Your task to perform on an android device: How do I get to the nearest McDonalds? Image 0: 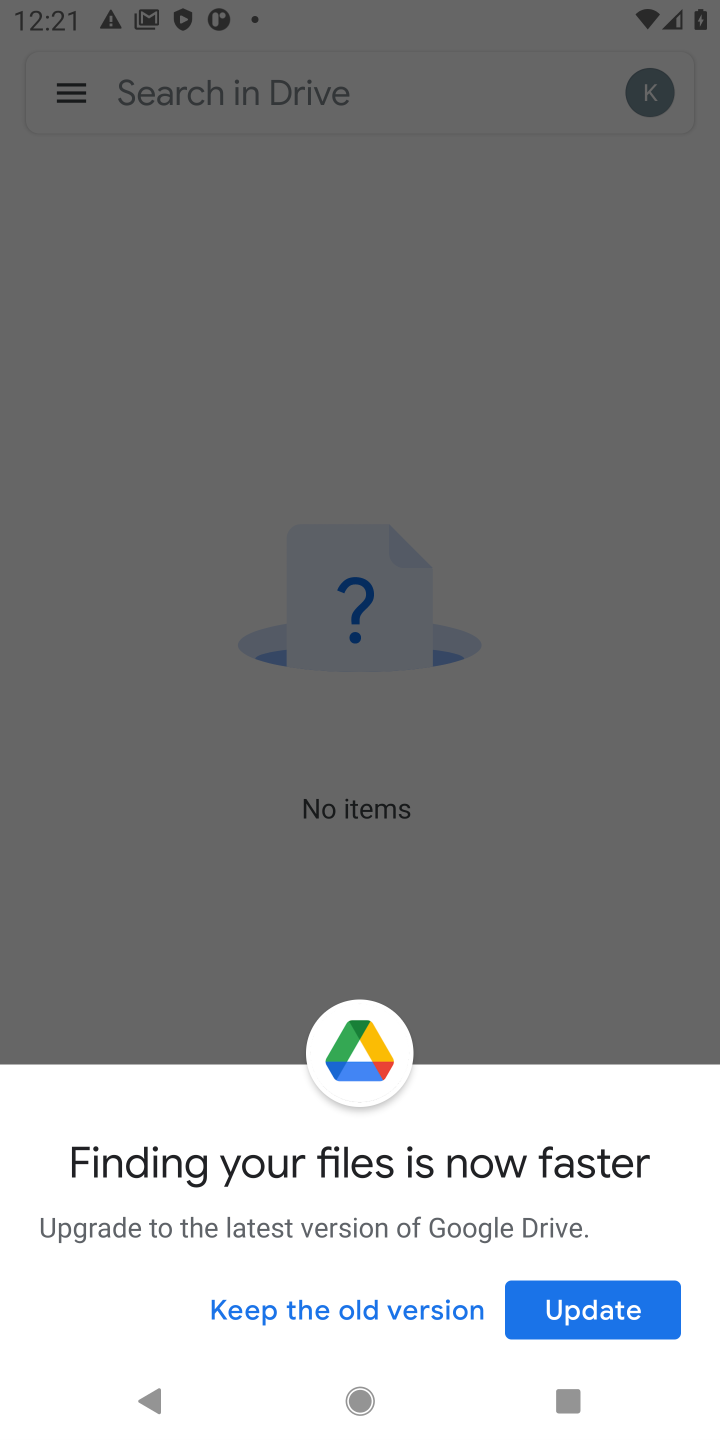
Step 0: press home button
Your task to perform on an android device: How do I get to the nearest McDonalds? Image 1: 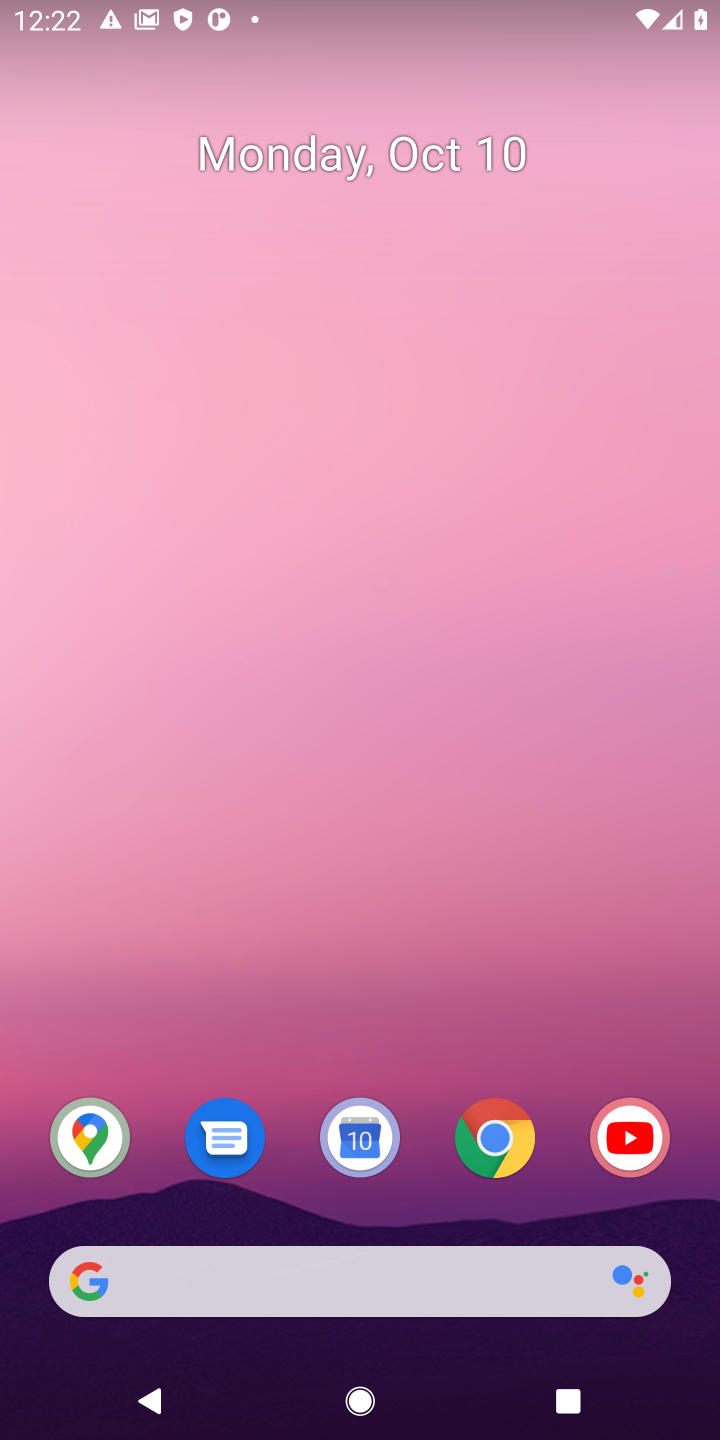
Step 1: click (511, 1133)
Your task to perform on an android device: How do I get to the nearest McDonalds? Image 2: 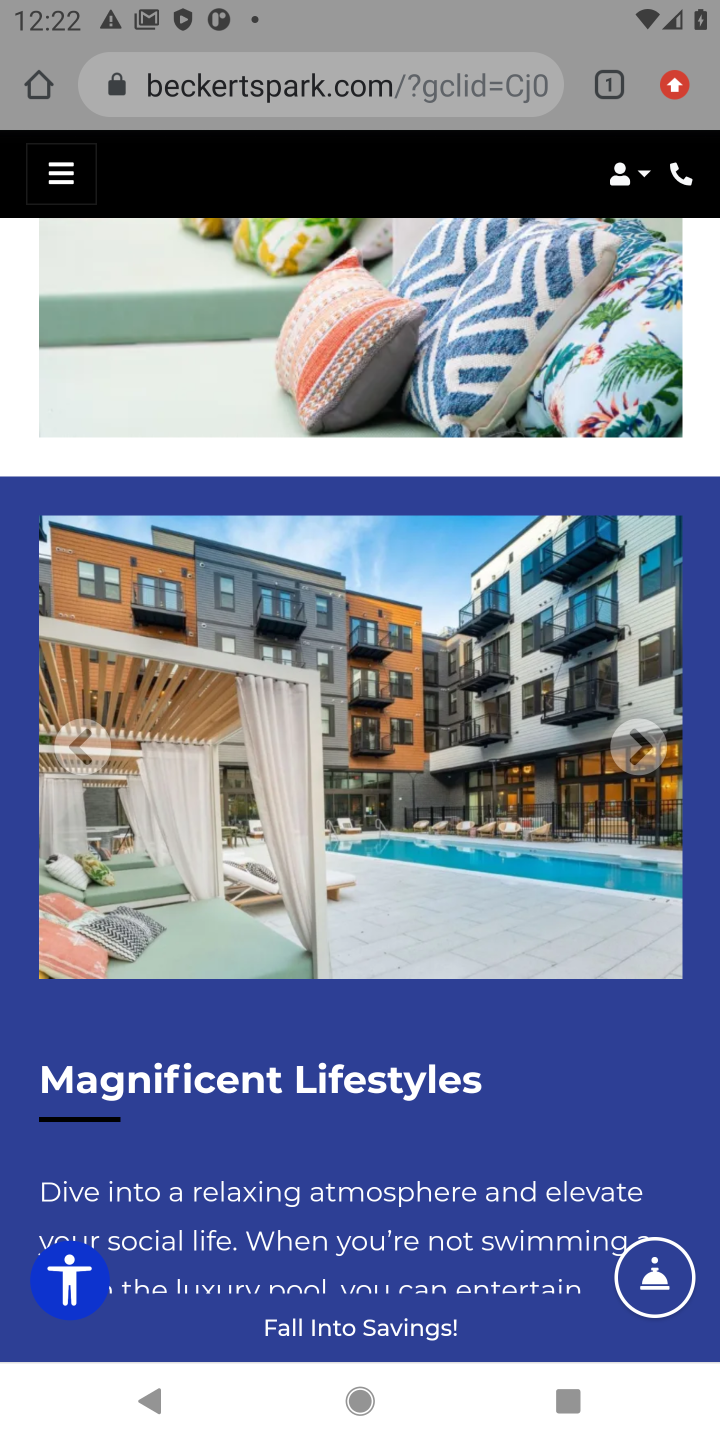
Step 2: click (322, 97)
Your task to perform on an android device: How do I get to the nearest McDonalds? Image 3: 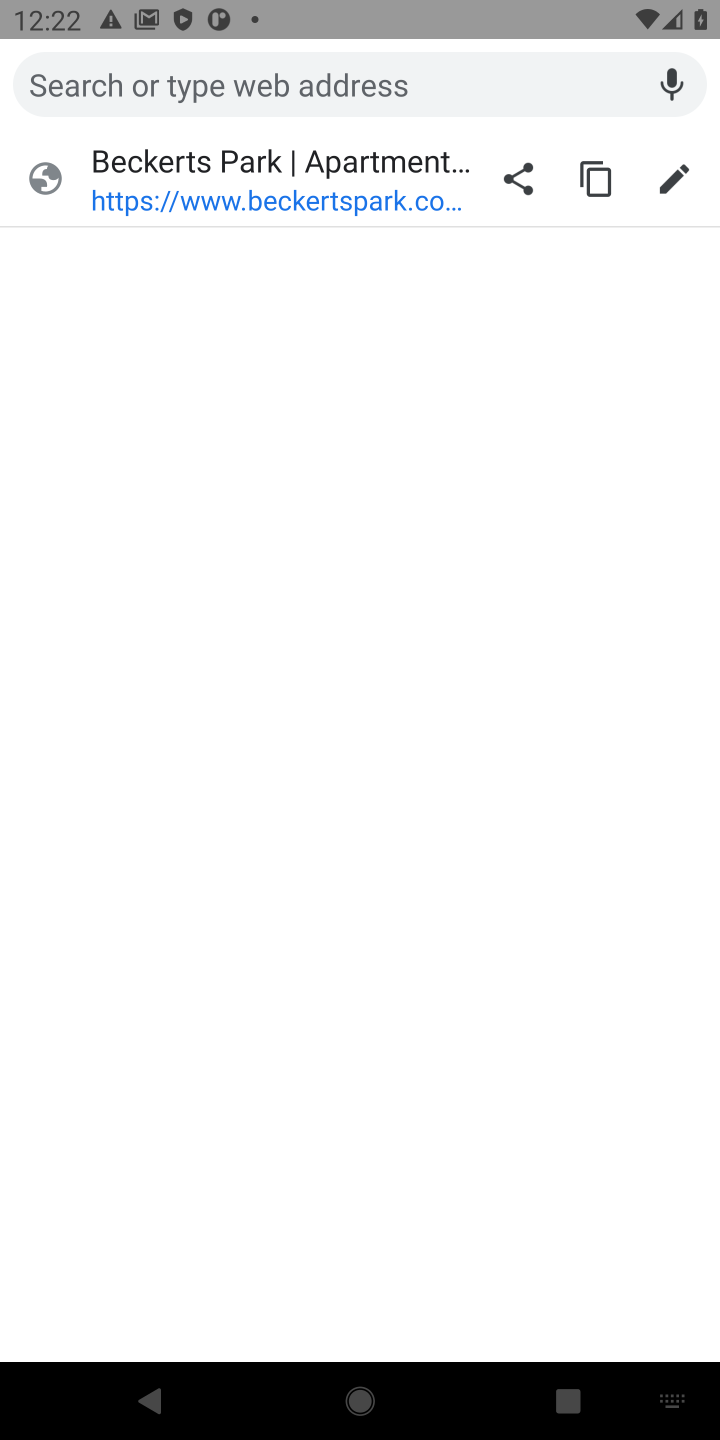
Step 3: type "How do I get to the nearest McDonalds?"
Your task to perform on an android device: How do I get to the nearest McDonalds? Image 4: 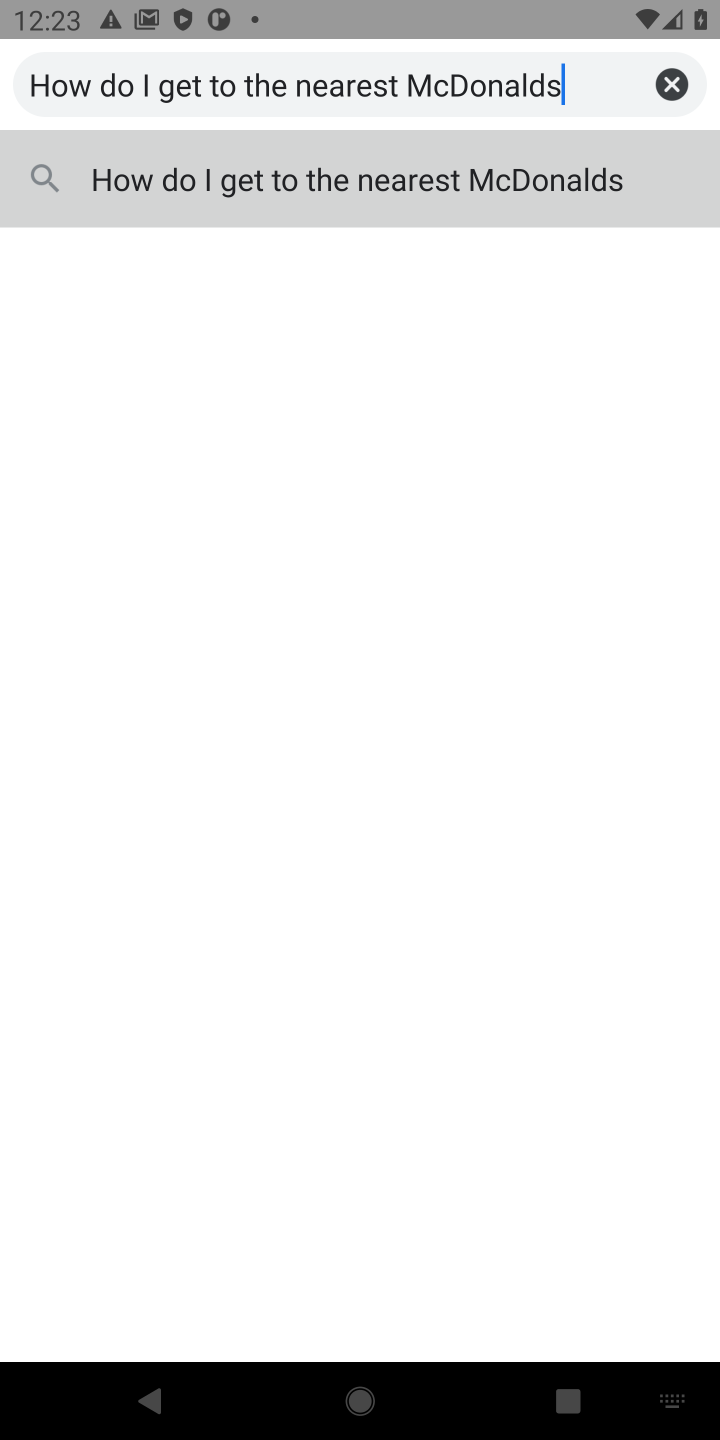
Step 4: press enter
Your task to perform on an android device: How do I get to the nearest McDonalds? Image 5: 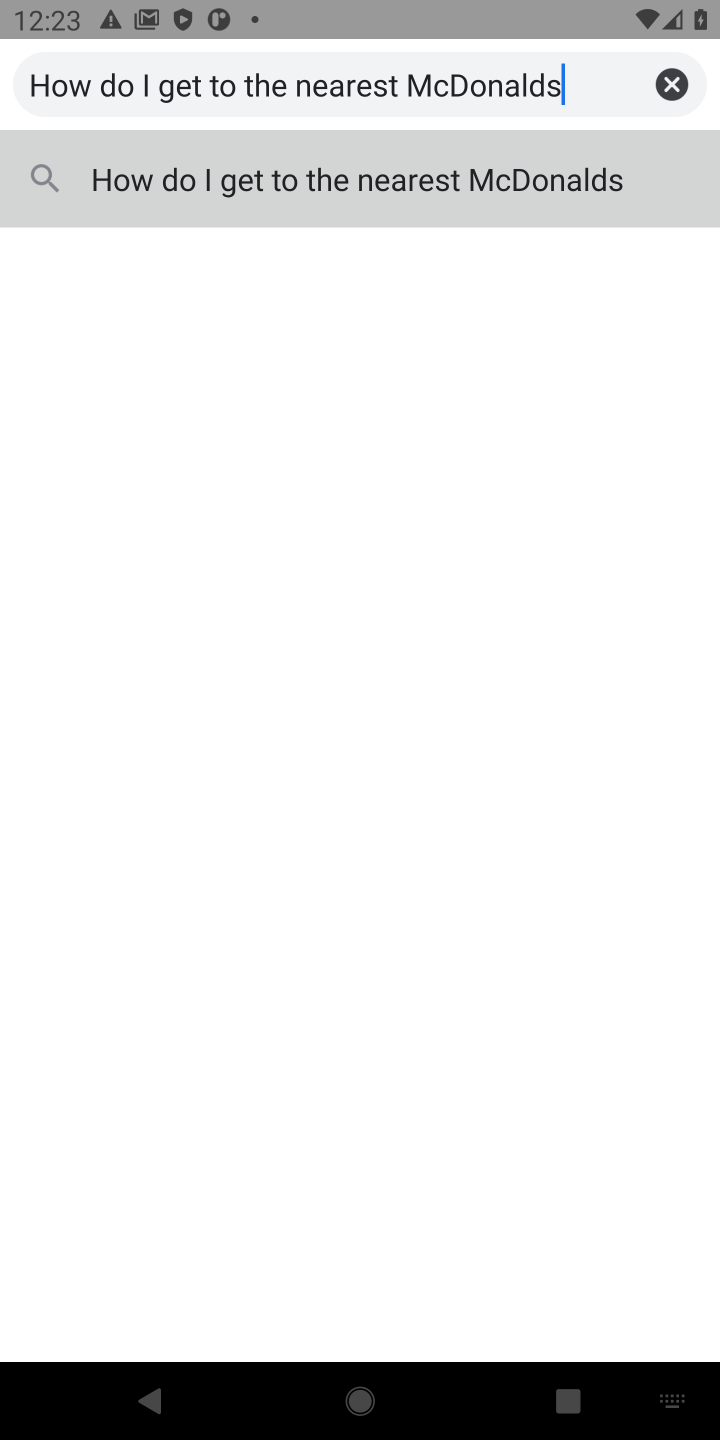
Step 5: type "How do I get to the nearest McDonalds?"
Your task to perform on an android device: How do I get to the nearest McDonalds? Image 6: 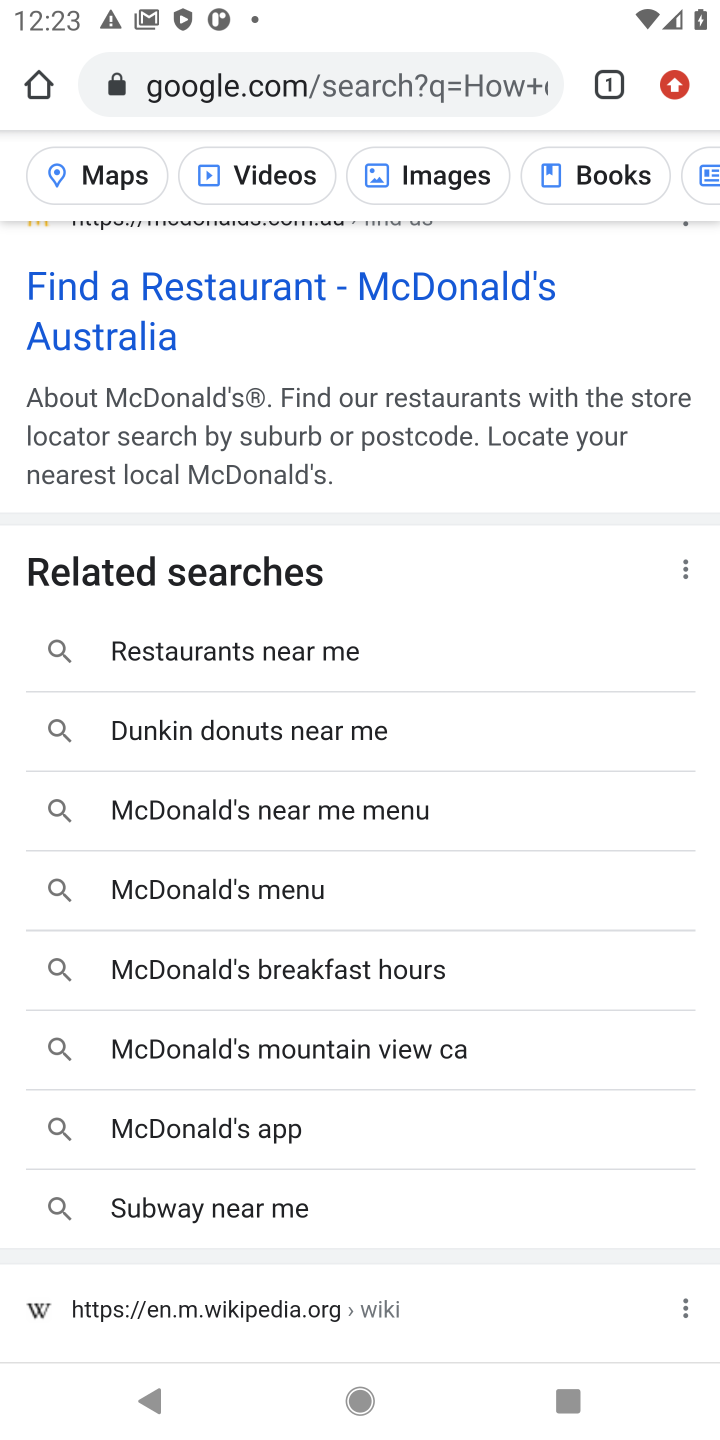
Step 6: click (519, 438)
Your task to perform on an android device: How do I get to the nearest McDonalds? Image 7: 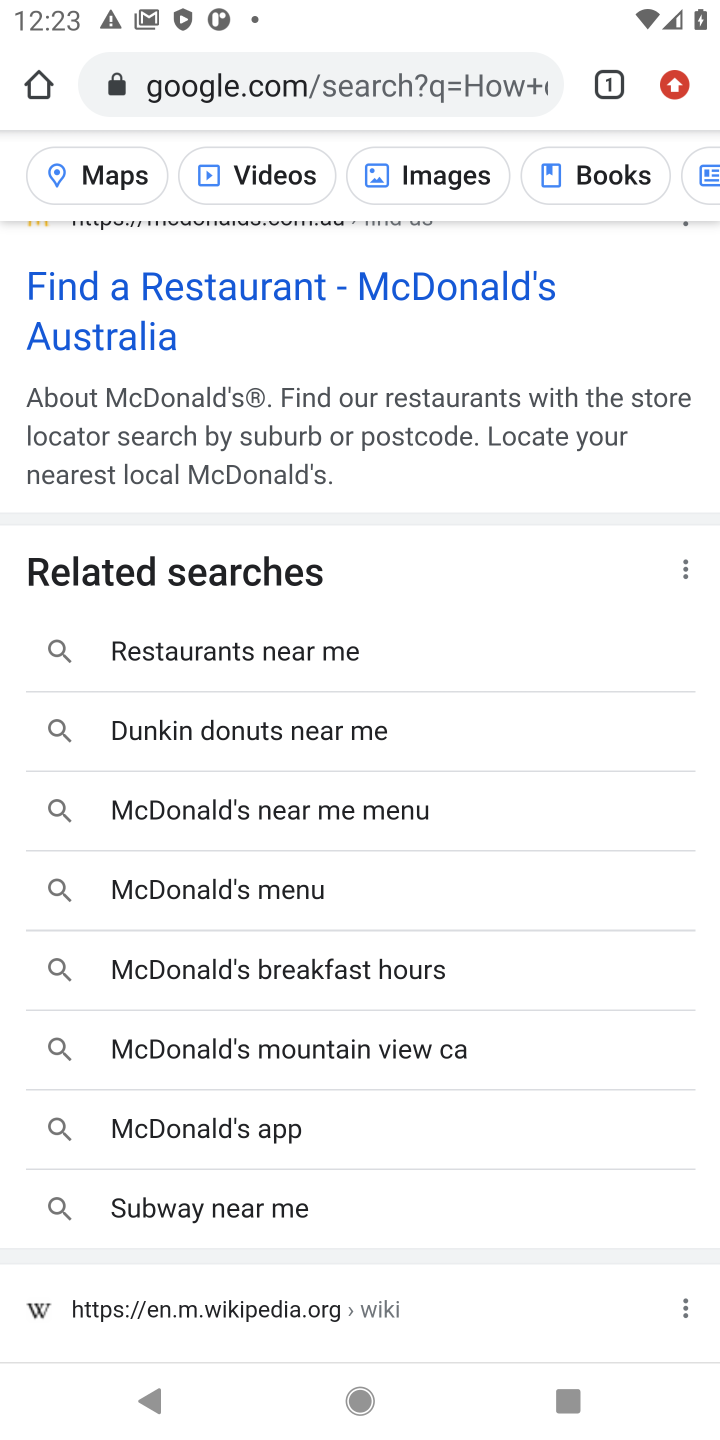
Step 7: drag from (606, 1155) to (573, 198)
Your task to perform on an android device: How do I get to the nearest McDonalds? Image 8: 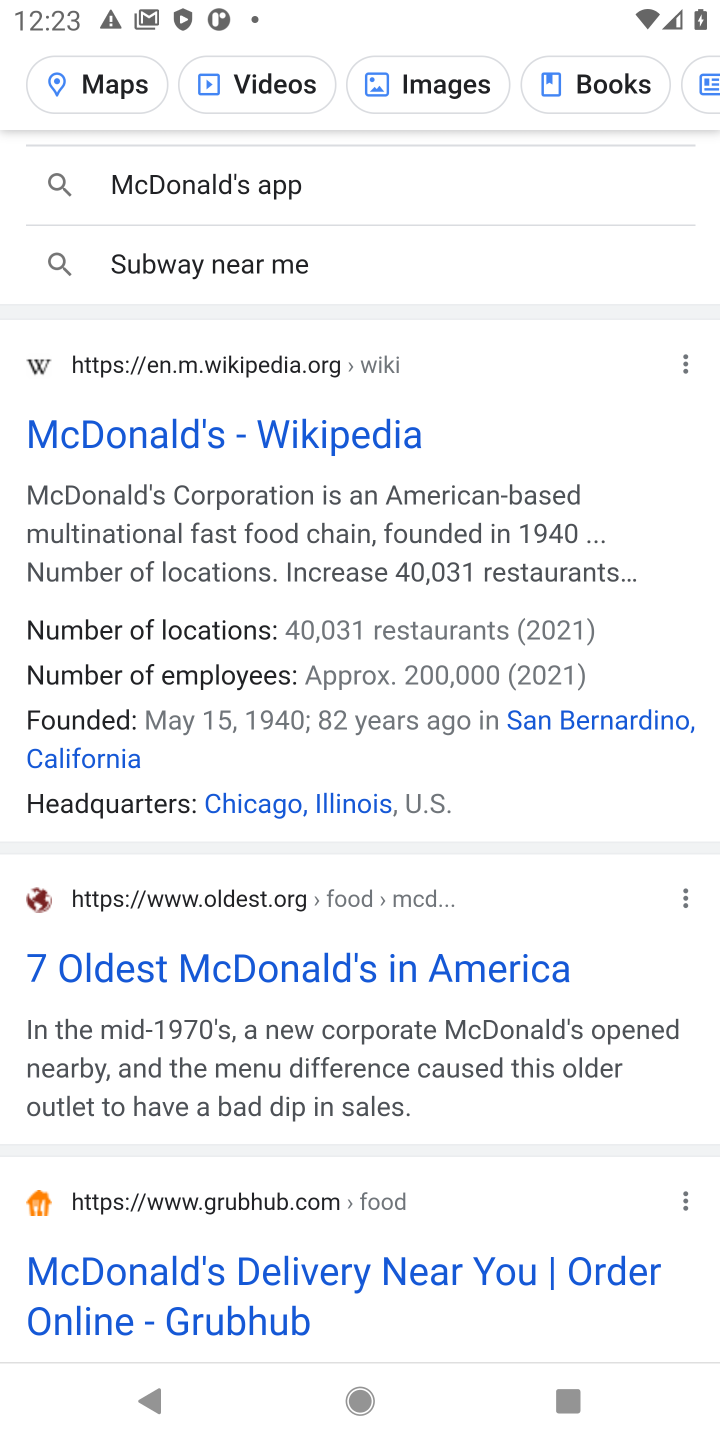
Step 8: drag from (415, 539) to (708, 1347)
Your task to perform on an android device: How do I get to the nearest McDonalds? Image 9: 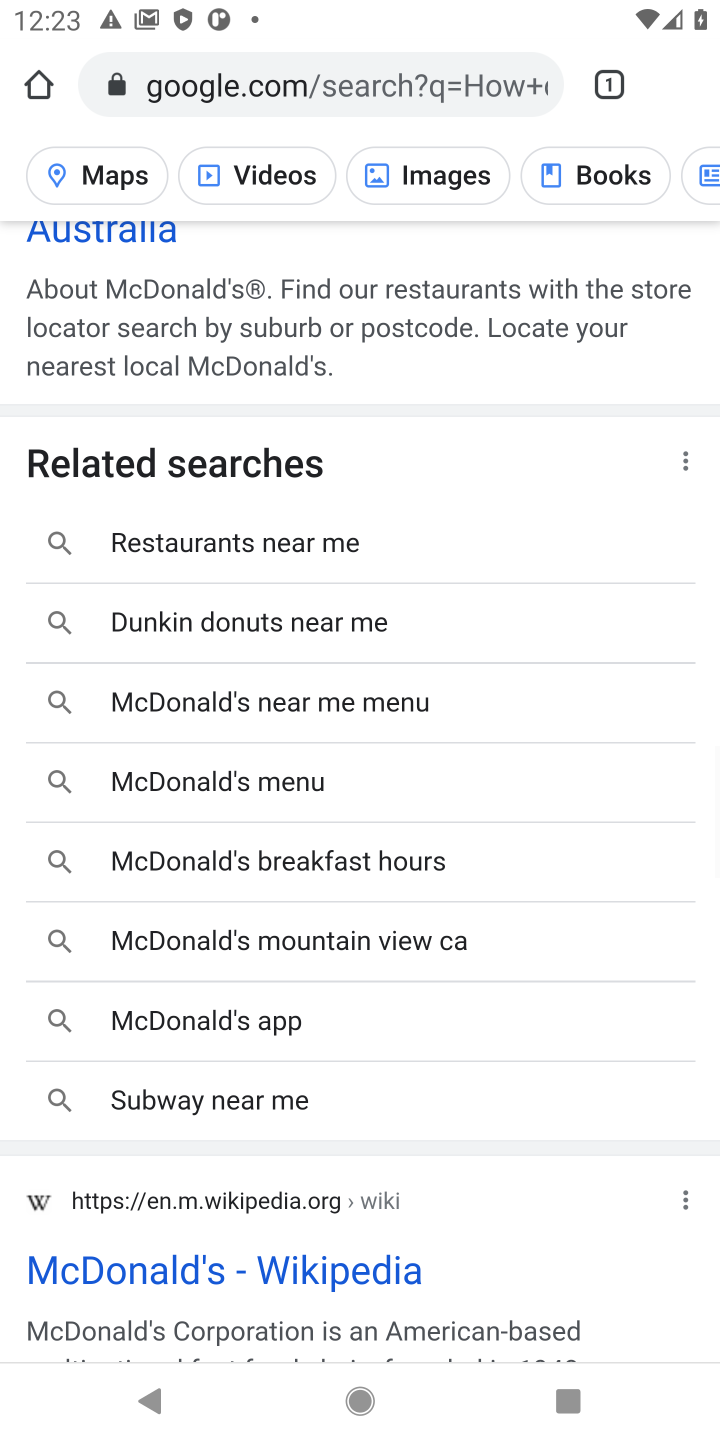
Step 9: drag from (536, 787) to (508, 1426)
Your task to perform on an android device: How do I get to the nearest McDonalds? Image 10: 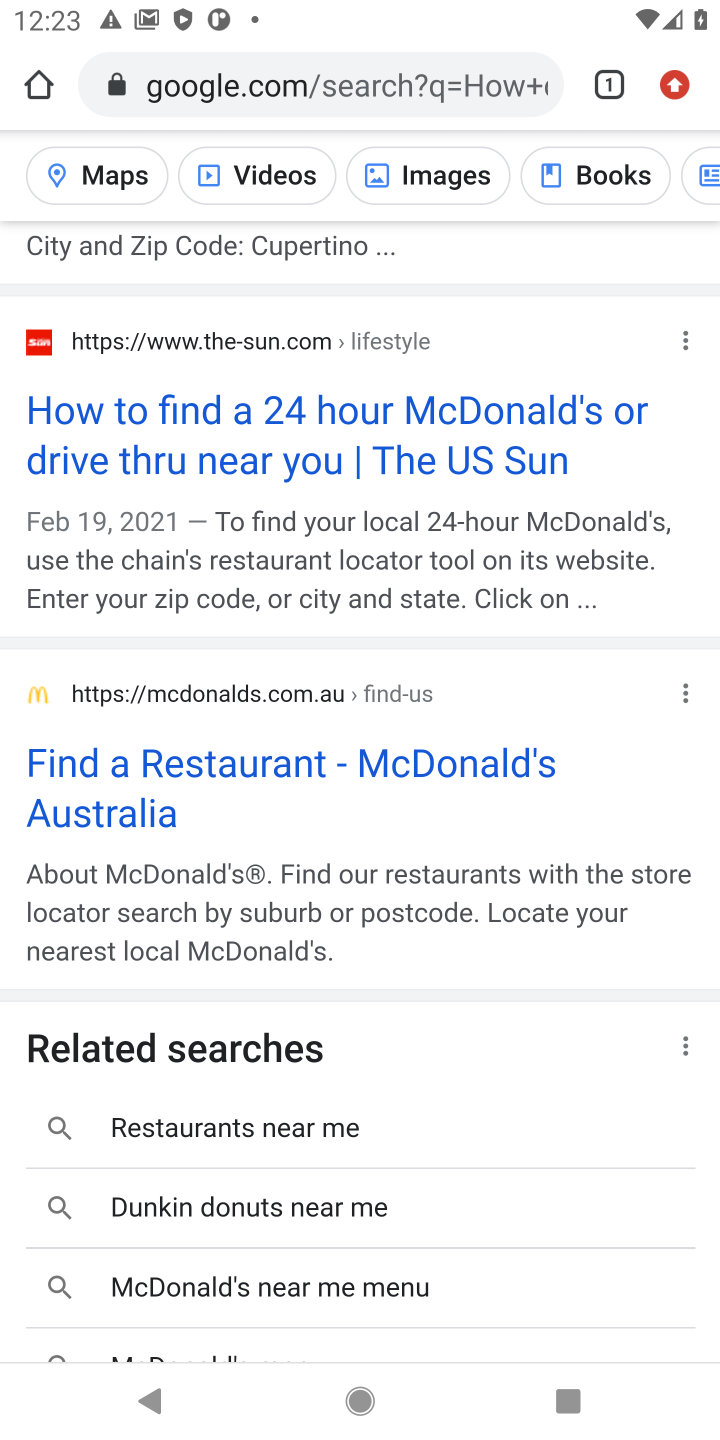
Step 10: click (103, 181)
Your task to perform on an android device: How do I get to the nearest McDonalds? Image 11: 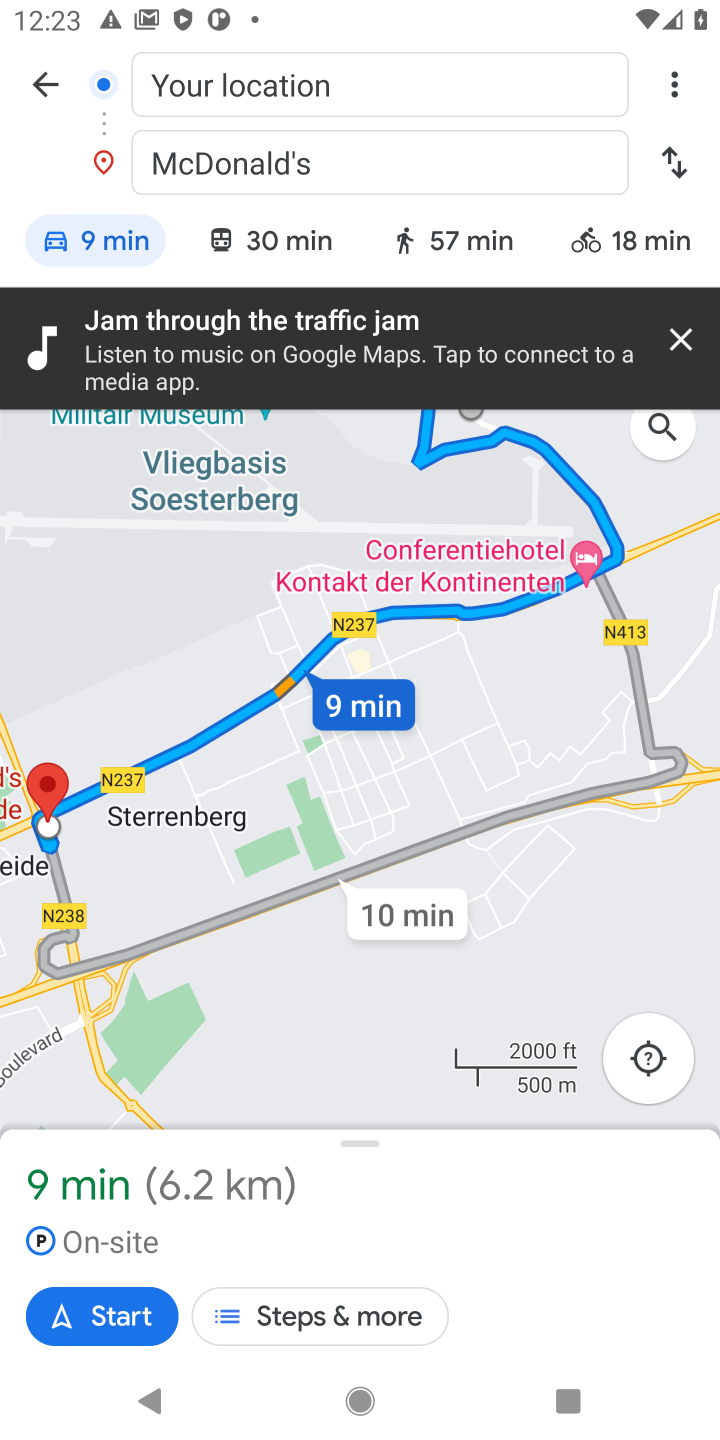
Step 11: task complete